Your task to perform on an android device: Open internet settings Image 0: 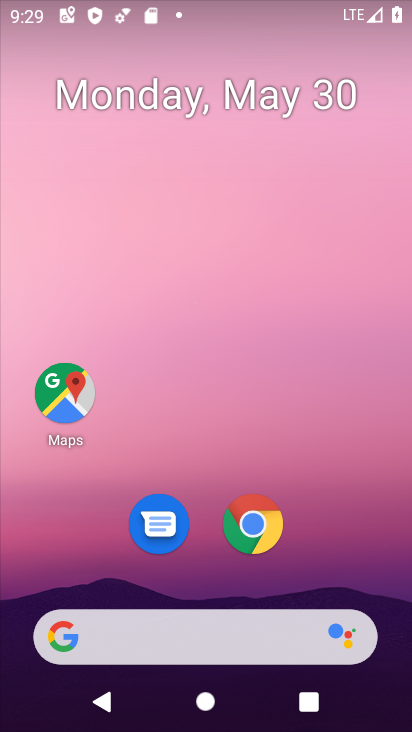
Step 0: drag from (300, 557) to (238, 17)
Your task to perform on an android device: Open internet settings Image 1: 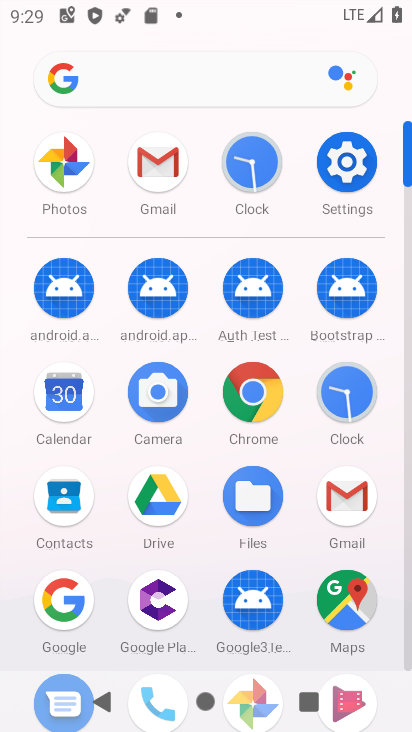
Step 1: click (349, 173)
Your task to perform on an android device: Open internet settings Image 2: 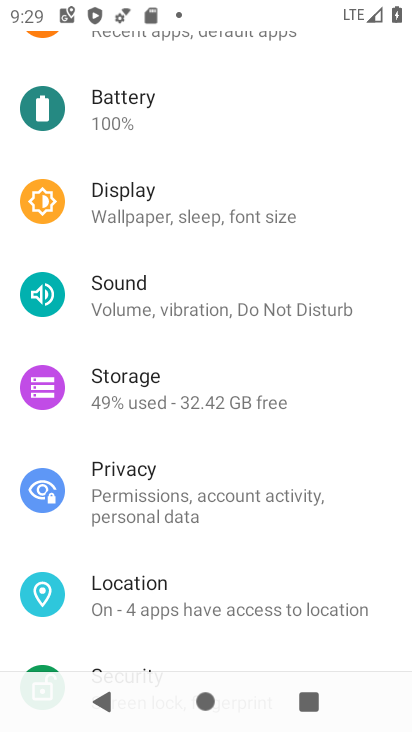
Step 2: drag from (256, 252) to (240, 616)
Your task to perform on an android device: Open internet settings Image 3: 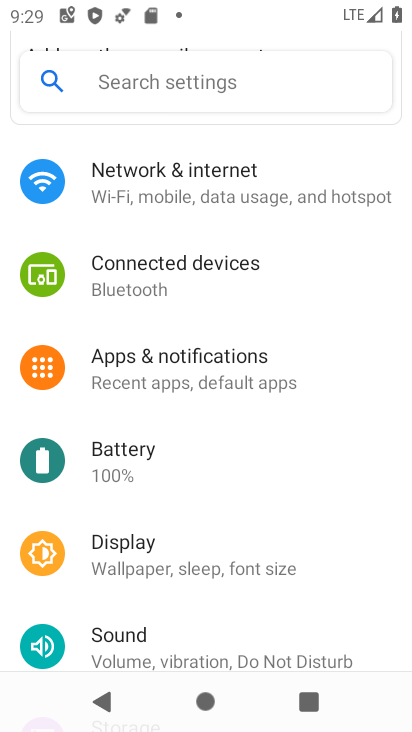
Step 3: click (234, 186)
Your task to perform on an android device: Open internet settings Image 4: 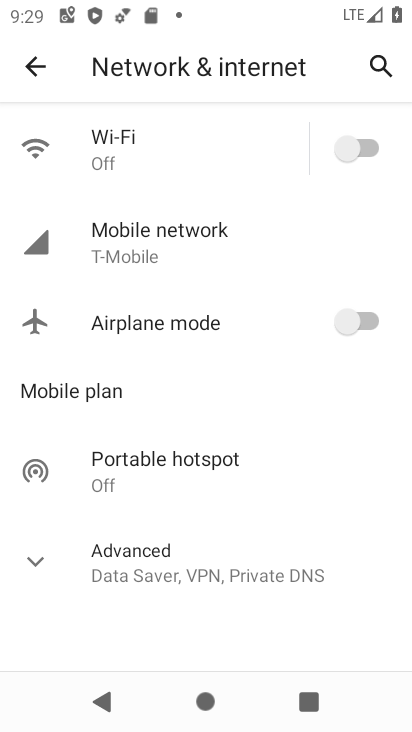
Step 4: task complete